Your task to perform on an android device: Open the calendar app, open the side menu, and click the "Day" option Image 0: 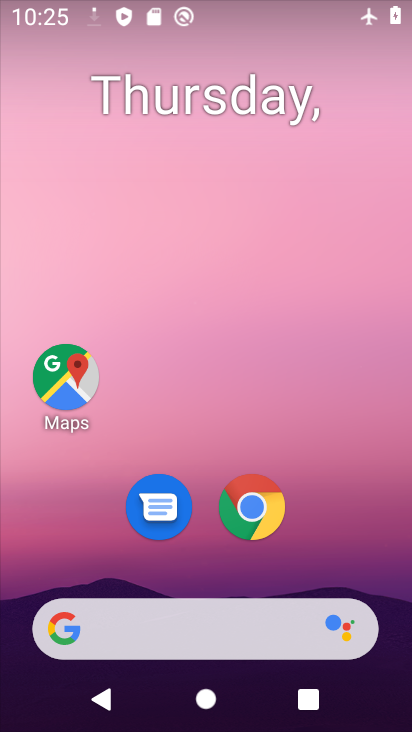
Step 0: drag from (352, 537) to (309, 46)
Your task to perform on an android device: Open the calendar app, open the side menu, and click the "Day" option Image 1: 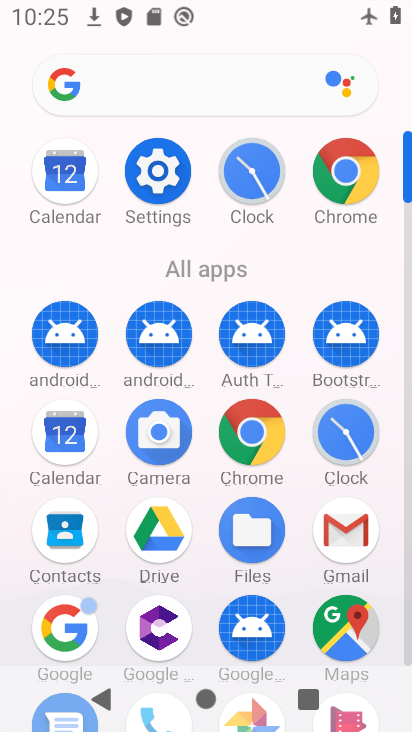
Step 1: drag from (16, 507) to (11, 193)
Your task to perform on an android device: Open the calendar app, open the side menu, and click the "Day" option Image 2: 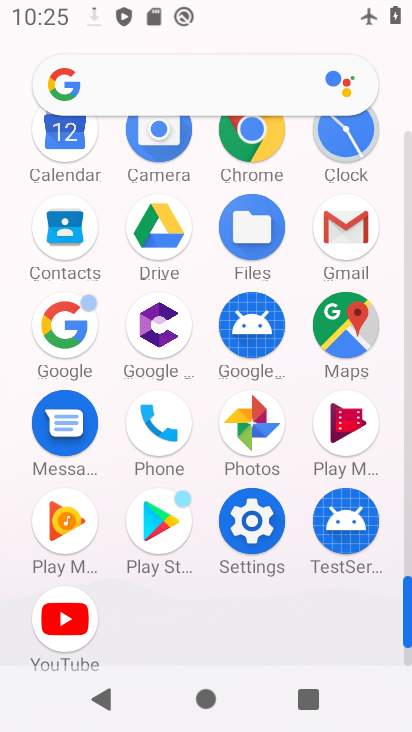
Step 2: drag from (10, 251) to (8, 497)
Your task to perform on an android device: Open the calendar app, open the side menu, and click the "Day" option Image 3: 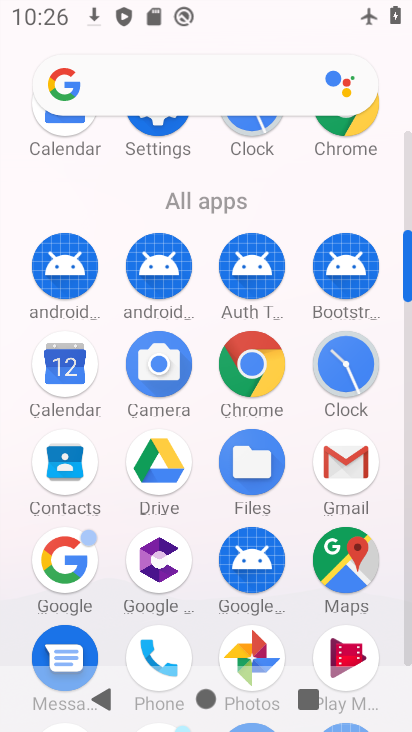
Step 3: click (64, 358)
Your task to perform on an android device: Open the calendar app, open the side menu, and click the "Day" option Image 4: 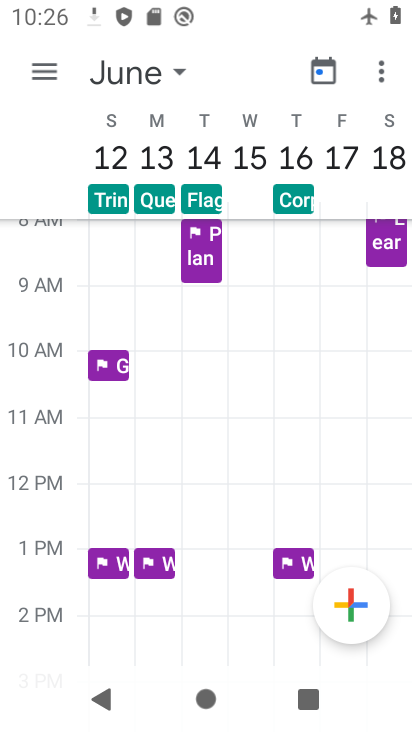
Step 4: click (328, 59)
Your task to perform on an android device: Open the calendar app, open the side menu, and click the "Day" option Image 5: 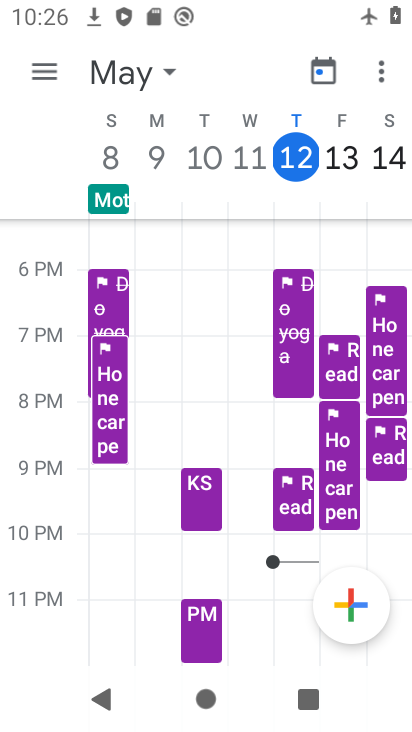
Step 5: click (13, 77)
Your task to perform on an android device: Open the calendar app, open the side menu, and click the "Day" option Image 6: 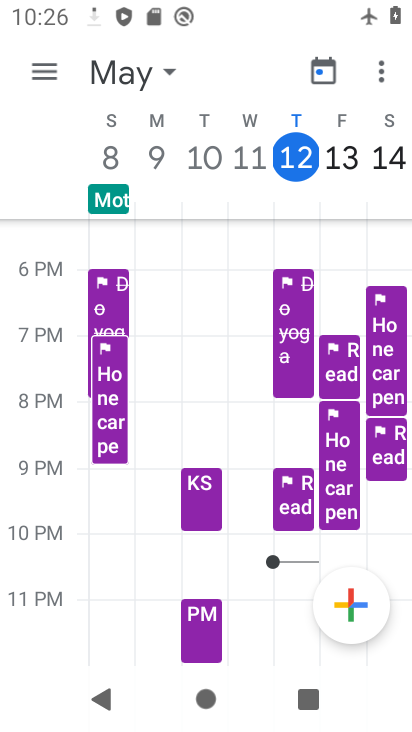
Step 6: click (59, 69)
Your task to perform on an android device: Open the calendar app, open the side menu, and click the "Day" option Image 7: 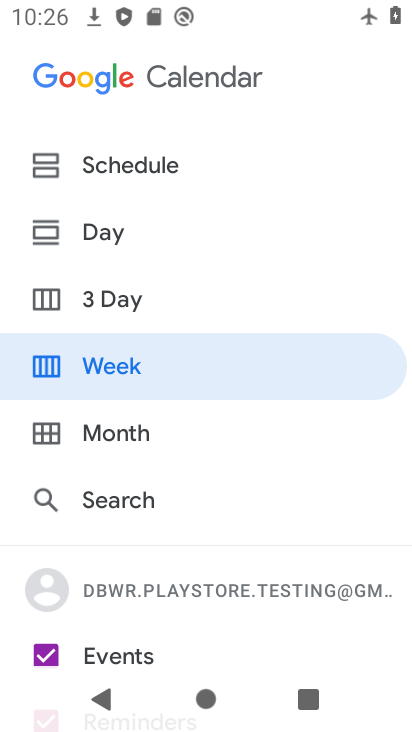
Step 7: click (139, 250)
Your task to perform on an android device: Open the calendar app, open the side menu, and click the "Day" option Image 8: 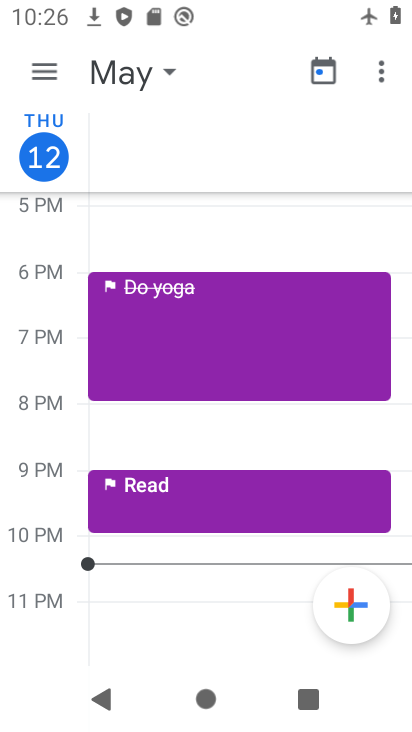
Step 8: task complete